Your task to perform on an android device: turn smart compose on in the gmail app Image 0: 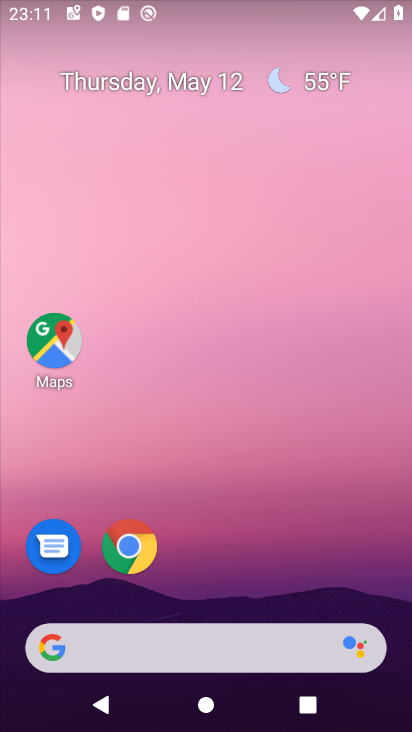
Step 0: drag from (191, 390) to (221, 153)
Your task to perform on an android device: turn smart compose on in the gmail app Image 1: 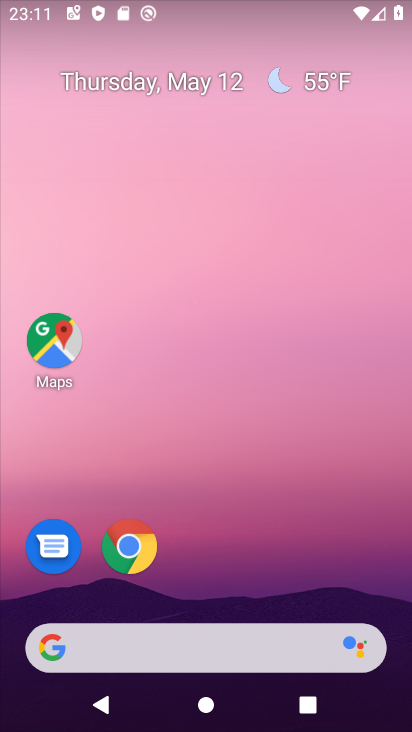
Step 1: drag from (225, 591) to (237, 43)
Your task to perform on an android device: turn smart compose on in the gmail app Image 2: 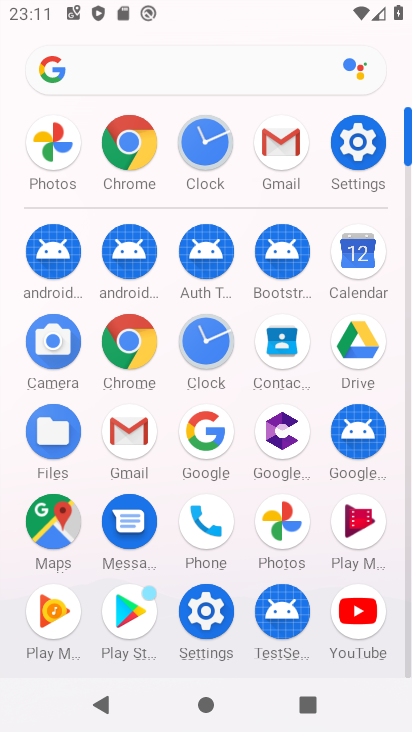
Step 2: click (276, 142)
Your task to perform on an android device: turn smart compose on in the gmail app Image 3: 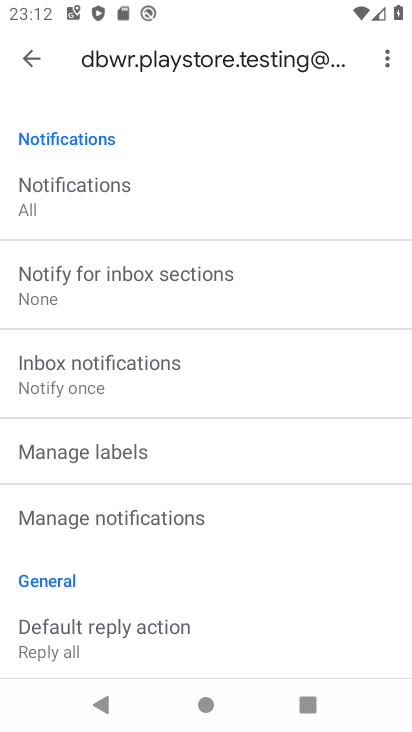
Step 3: task complete